Your task to perform on an android device: What's the weather going to be this weekend? Image 0: 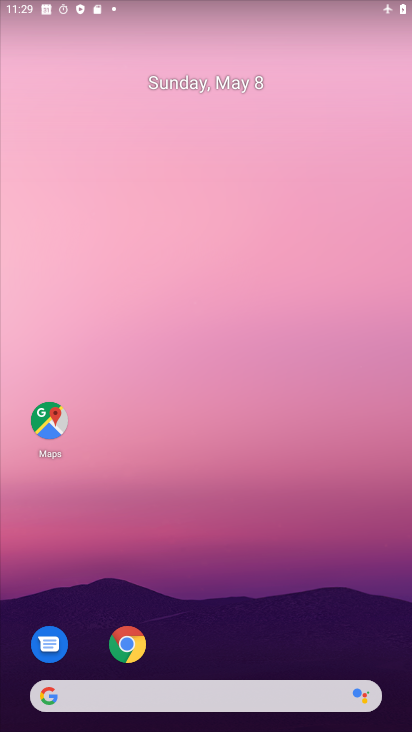
Step 0: drag from (224, 514) to (224, 358)
Your task to perform on an android device: What's the weather going to be this weekend? Image 1: 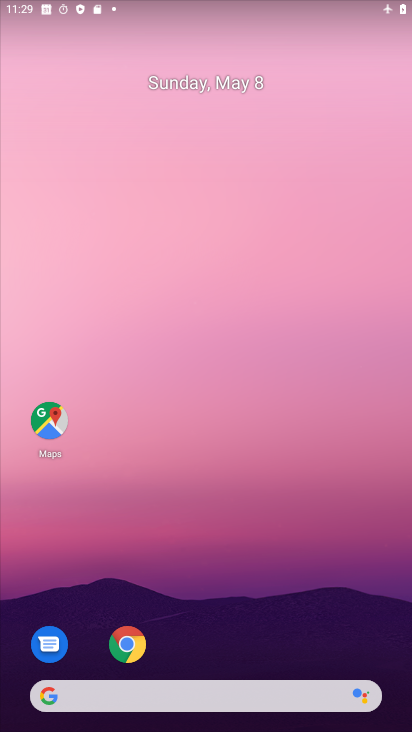
Step 1: drag from (226, 643) to (243, 198)
Your task to perform on an android device: What's the weather going to be this weekend? Image 2: 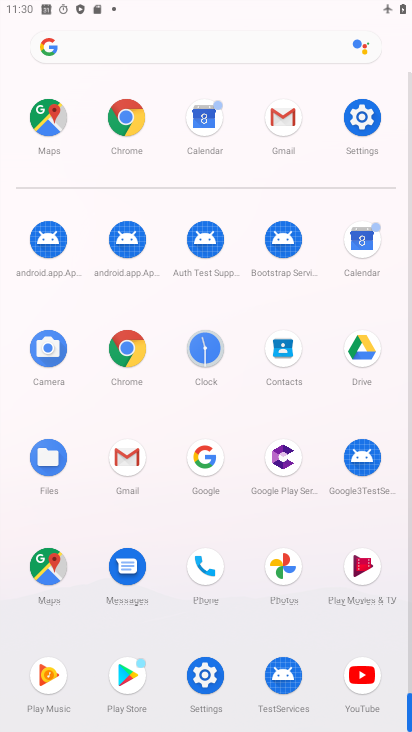
Step 2: click (209, 40)
Your task to perform on an android device: What's the weather going to be this weekend? Image 3: 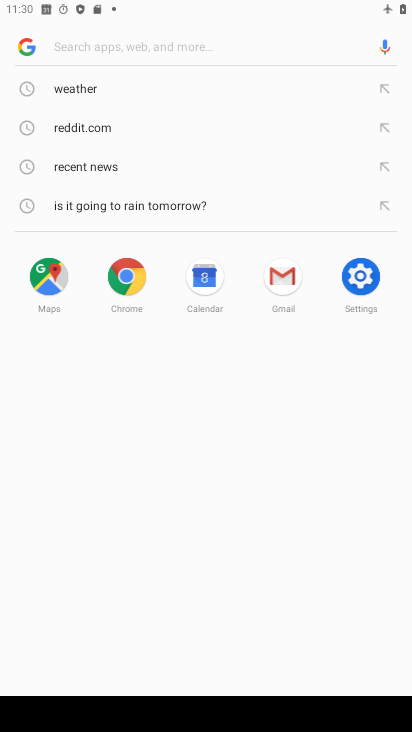
Step 3: click (221, 43)
Your task to perform on an android device: What's the weather going to be this weekend? Image 4: 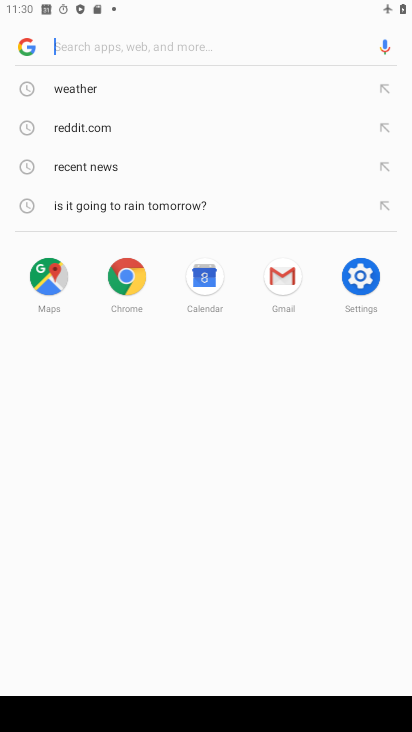
Step 4: type "waerther going to be weekend"
Your task to perform on an android device: What's the weather going to be this weekend? Image 5: 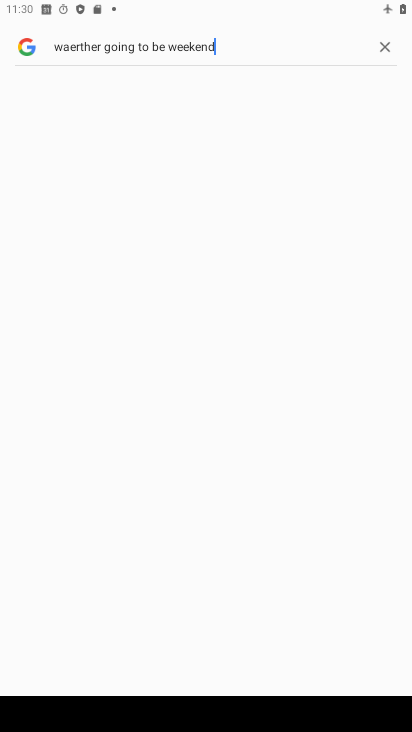
Step 5: drag from (191, 492) to (213, 225)
Your task to perform on an android device: What's the weather going to be this weekend? Image 6: 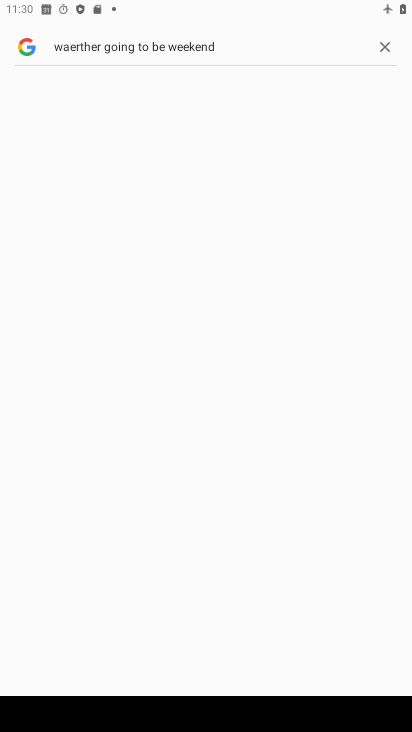
Step 6: click (181, 158)
Your task to perform on an android device: What's the weather going to be this weekend? Image 7: 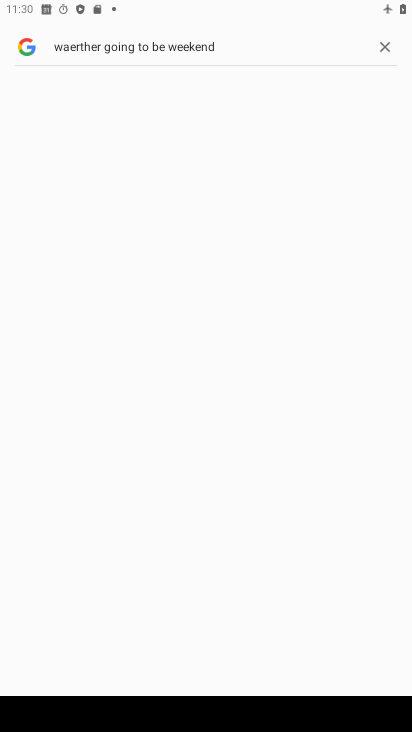
Step 7: task complete